Your task to perform on an android device: Check the weather Image 0: 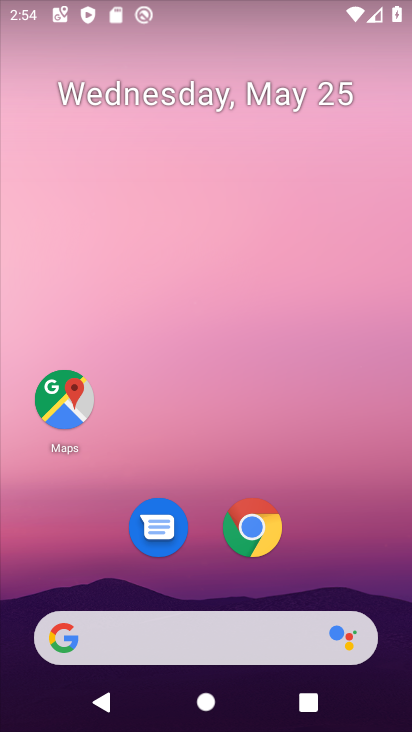
Step 0: click (269, 25)
Your task to perform on an android device: Check the weather Image 1: 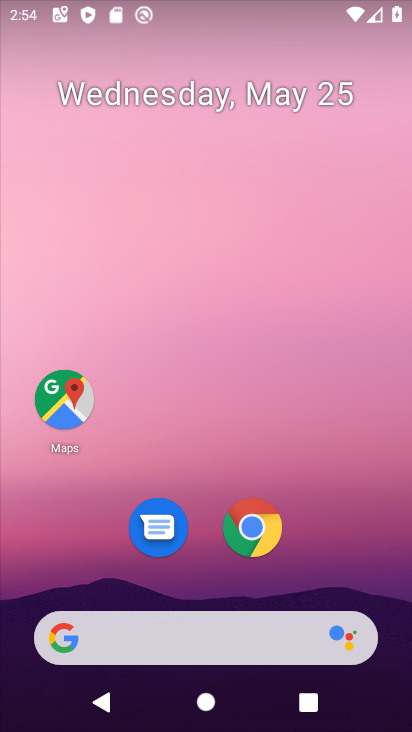
Step 1: drag from (220, 592) to (201, 204)
Your task to perform on an android device: Check the weather Image 2: 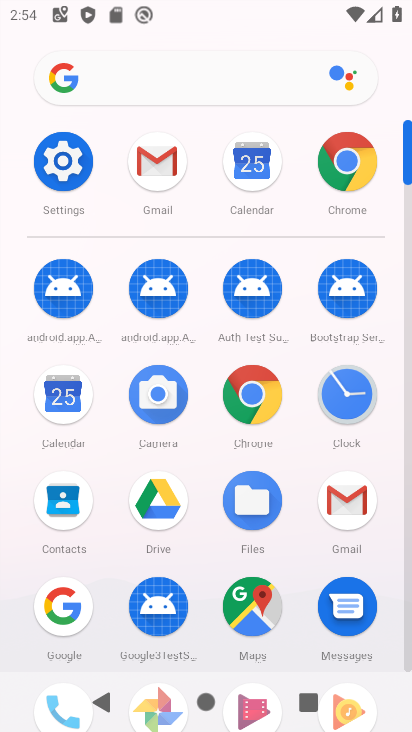
Step 2: click (162, 67)
Your task to perform on an android device: Check the weather Image 3: 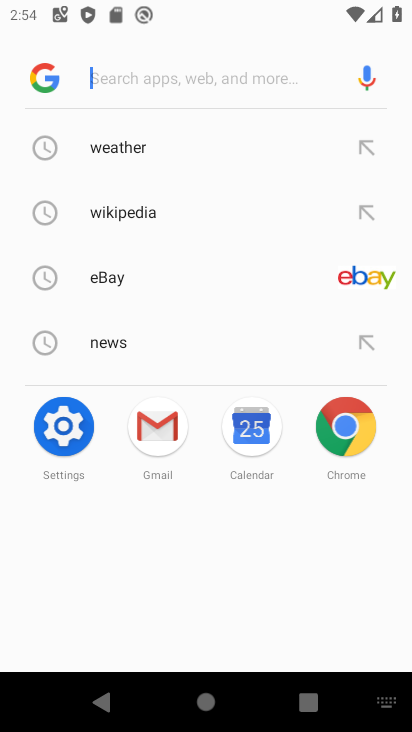
Step 3: click (134, 145)
Your task to perform on an android device: Check the weather Image 4: 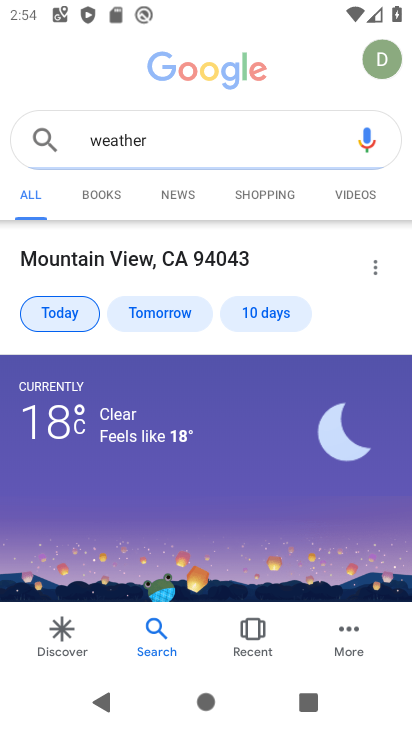
Step 4: task complete